Your task to perform on an android device: change your default location settings in chrome Image 0: 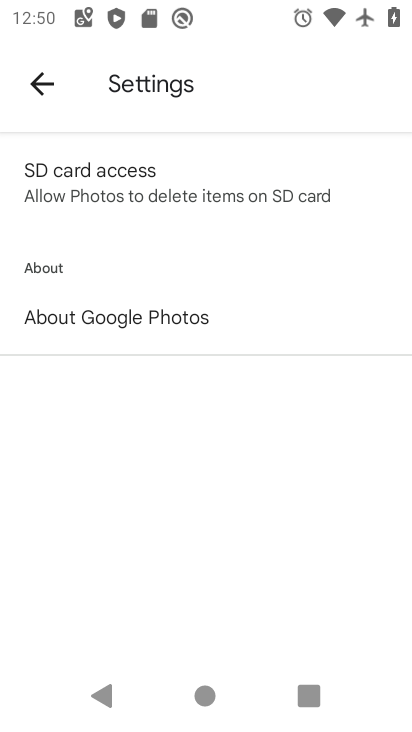
Step 0: click (55, 75)
Your task to perform on an android device: change your default location settings in chrome Image 1: 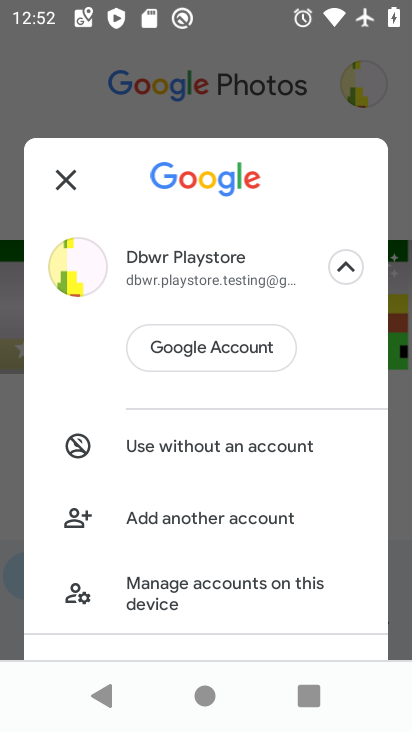
Step 1: task complete